Your task to perform on an android device: toggle javascript in the chrome app Image 0: 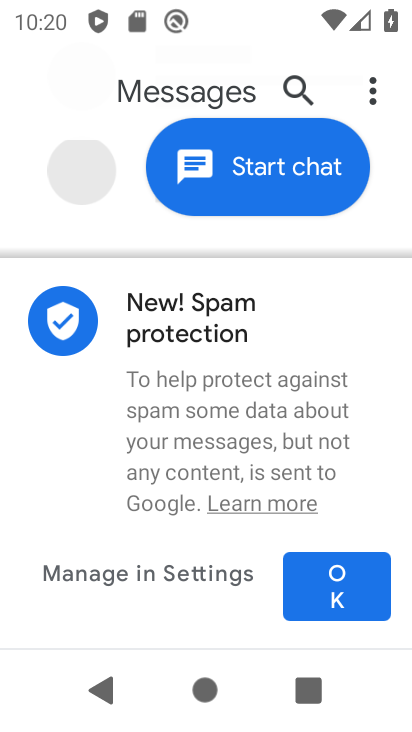
Step 0: press home button
Your task to perform on an android device: toggle javascript in the chrome app Image 1: 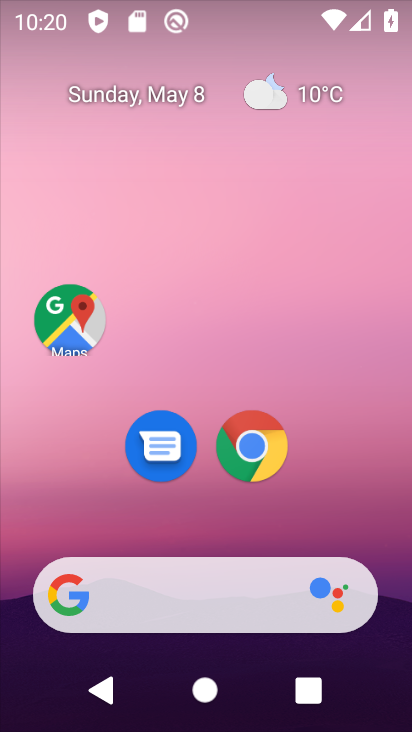
Step 1: click (256, 456)
Your task to perform on an android device: toggle javascript in the chrome app Image 2: 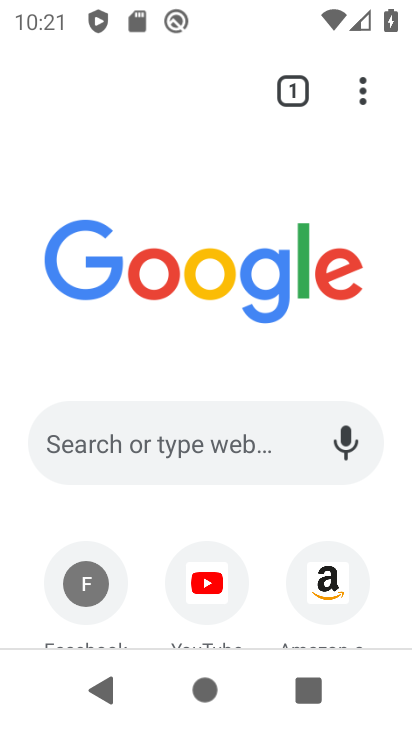
Step 2: drag from (364, 96) to (133, 484)
Your task to perform on an android device: toggle javascript in the chrome app Image 3: 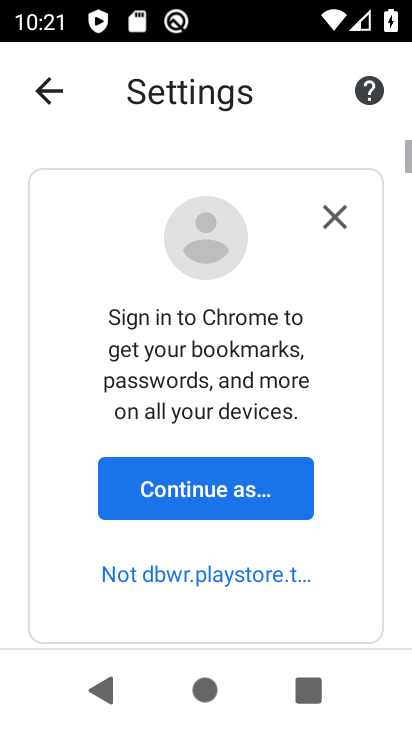
Step 3: drag from (224, 599) to (235, 160)
Your task to perform on an android device: toggle javascript in the chrome app Image 4: 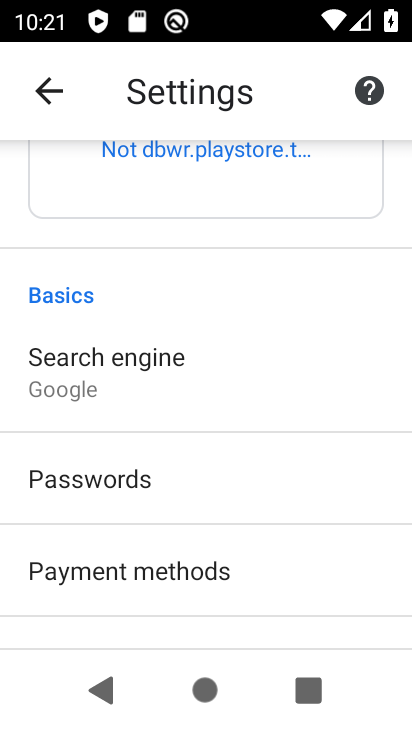
Step 4: drag from (234, 508) to (245, 31)
Your task to perform on an android device: toggle javascript in the chrome app Image 5: 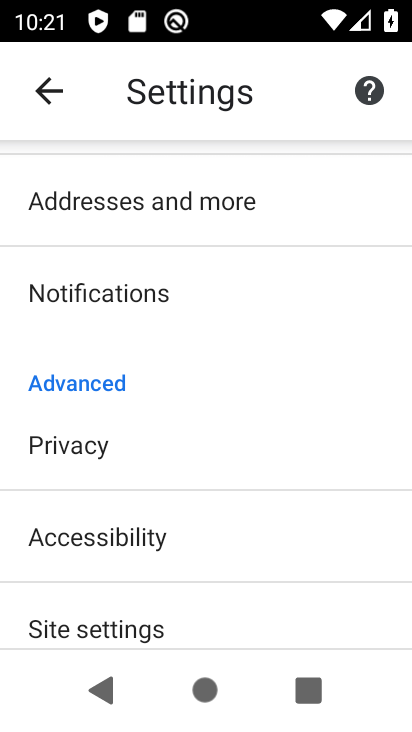
Step 5: click (126, 627)
Your task to perform on an android device: toggle javascript in the chrome app Image 6: 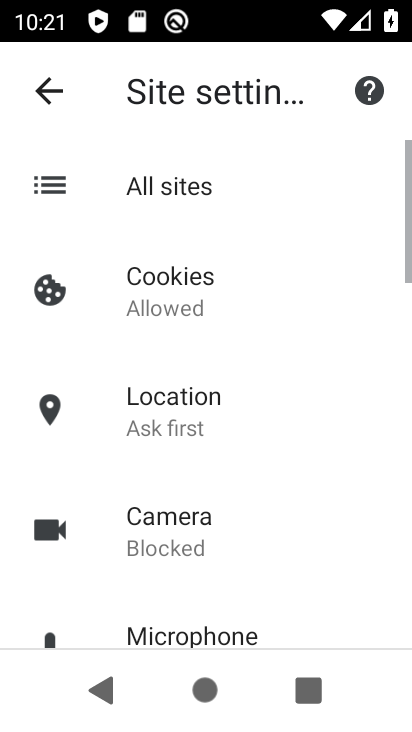
Step 6: drag from (244, 592) to (264, 325)
Your task to perform on an android device: toggle javascript in the chrome app Image 7: 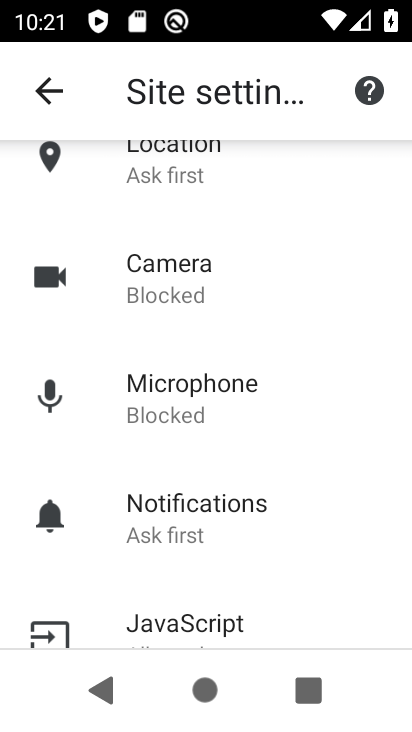
Step 7: click (187, 626)
Your task to perform on an android device: toggle javascript in the chrome app Image 8: 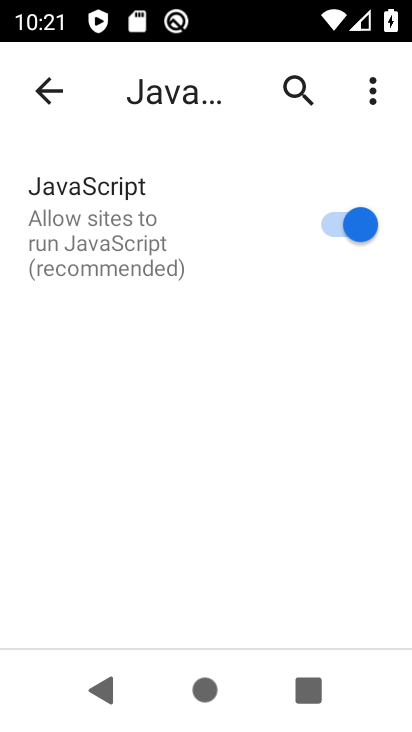
Step 8: click (365, 237)
Your task to perform on an android device: toggle javascript in the chrome app Image 9: 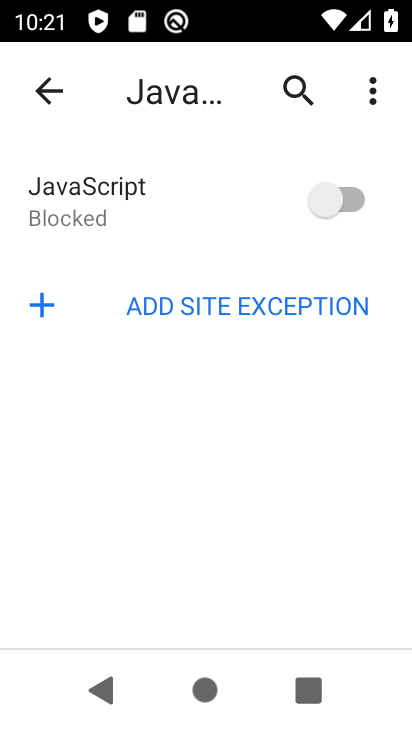
Step 9: task complete